Your task to perform on an android device: Search for the best rated 3d printer on Amazon. Image 0: 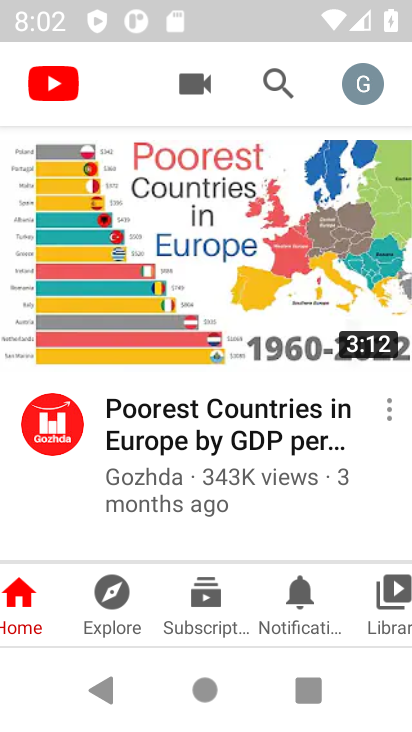
Step 0: press home button
Your task to perform on an android device: Search for the best rated 3d printer on Amazon. Image 1: 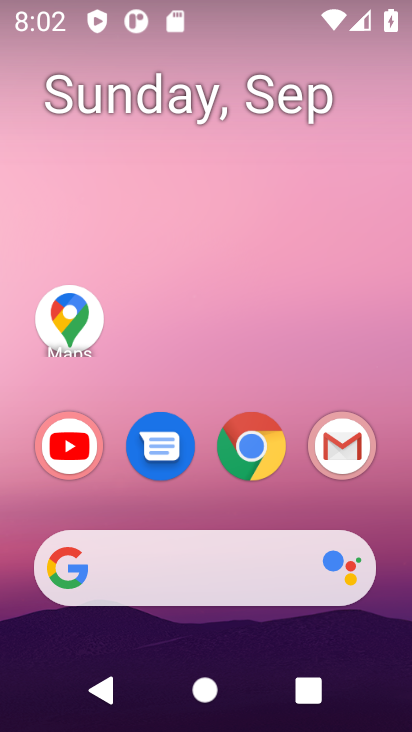
Step 1: click (364, 427)
Your task to perform on an android device: Search for the best rated 3d printer on Amazon. Image 2: 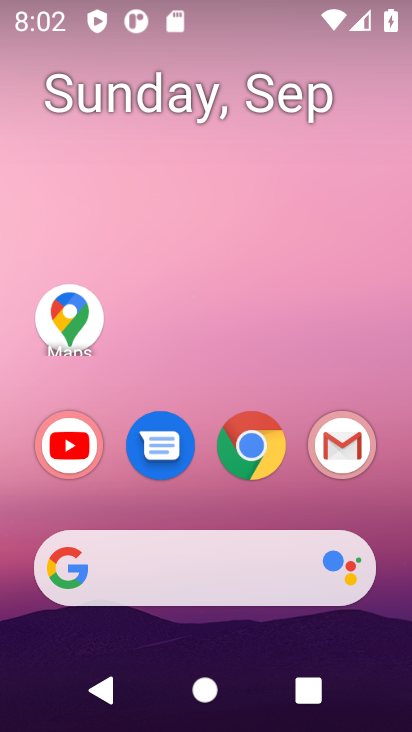
Step 2: drag from (216, 142) to (219, 26)
Your task to perform on an android device: Search for the best rated 3d printer on Amazon. Image 3: 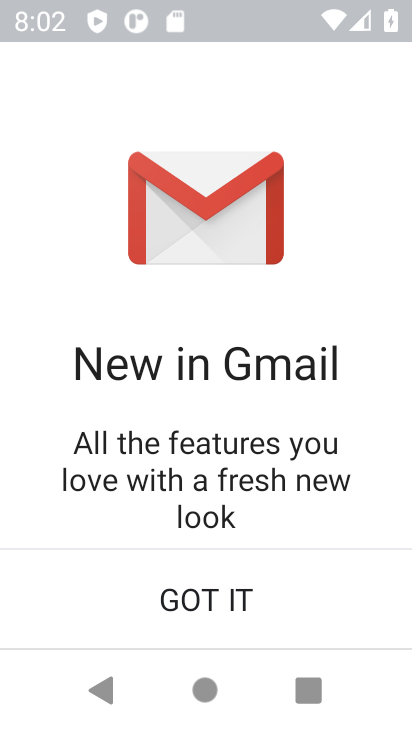
Step 3: press home button
Your task to perform on an android device: Search for the best rated 3d printer on Amazon. Image 4: 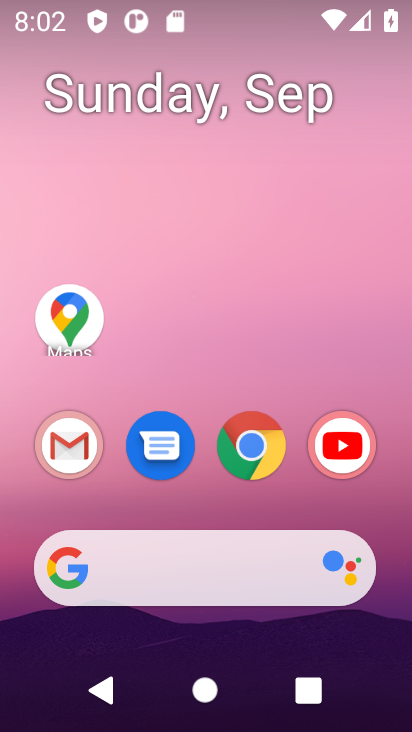
Step 4: click (176, 92)
Your task to perform on an android device: Search for the best rated 3d printer on Amazon. Image 5: 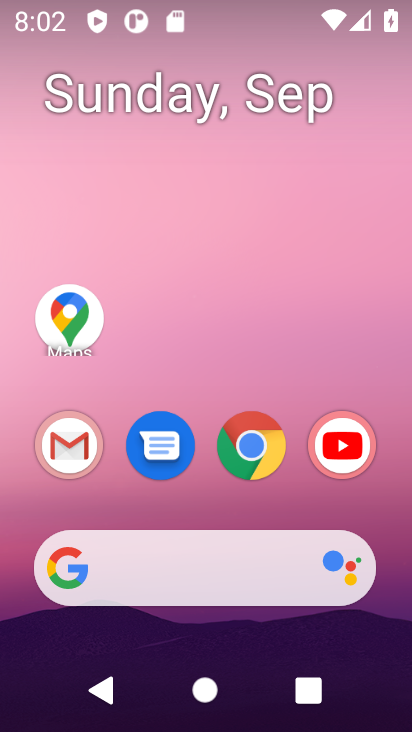
Step 5: click (270, 463)
Your task to perform on an android device: Search for the best rated 3d printer on Amazon. Image 6: 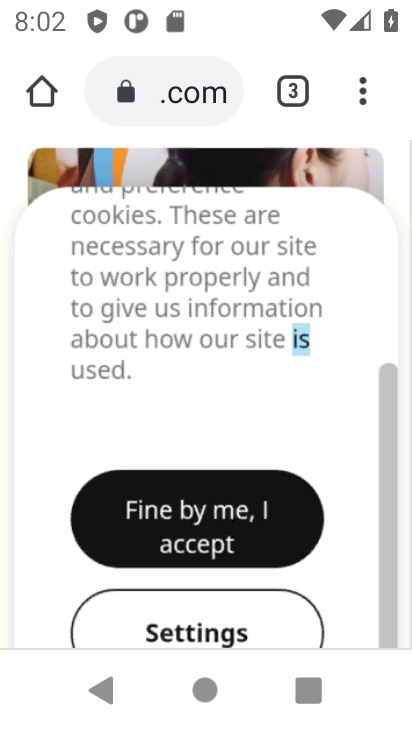
Step 6: click (171, 98)
Your task to perform on an android device: Search for the best rated 3d printer on Amazon. Image 7: 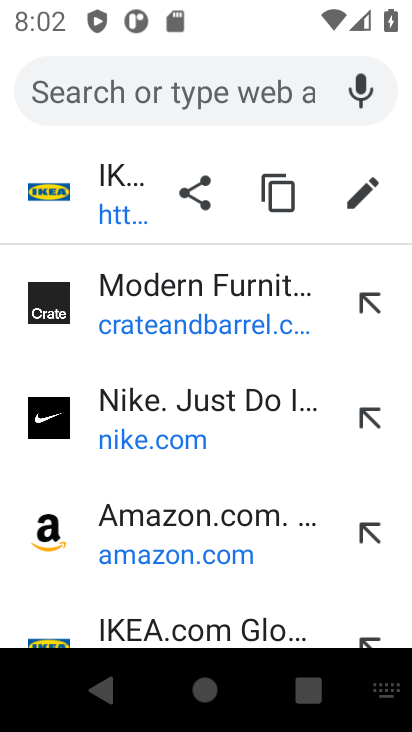
Step 7: click (207, 529)
Your task to perform on an android device: Search for the best rated 3d printer on Amazon. Image 8: 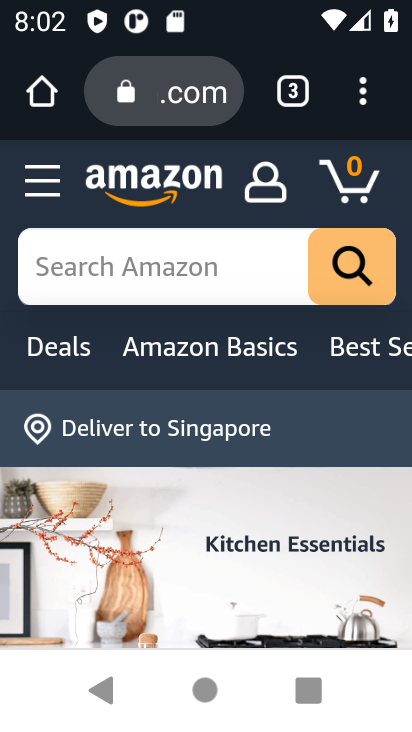
Step 8: type "best rated 3d printer "
Your task to perform on an android device: Search for the best rated 3d printer on Amazon. Image 9: 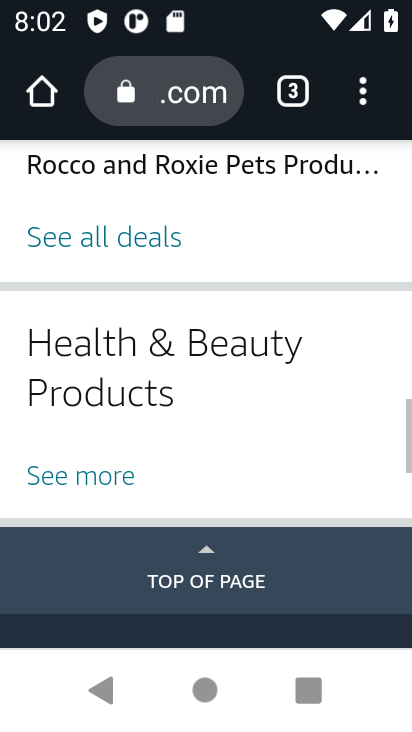
Step 9: press enter
Your task to perform on an android device: Search for the best rated 3d printer on Amazon. Image 10: 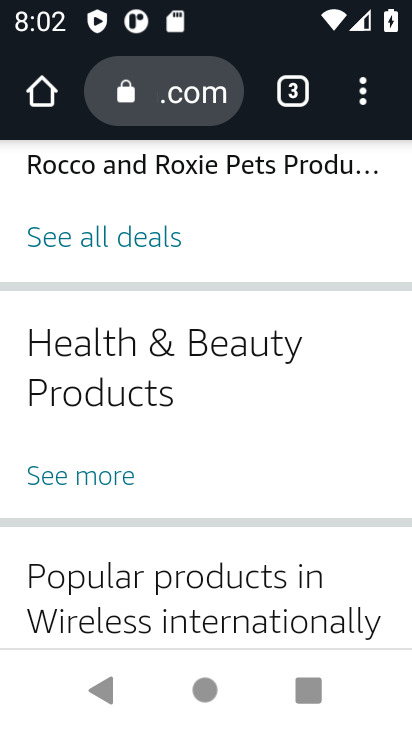
Step 10: drag from (271, 315) to (239, 611)
Your task to perform on an android device: Search for the best rated 3d printer on Amazon. Image 11: 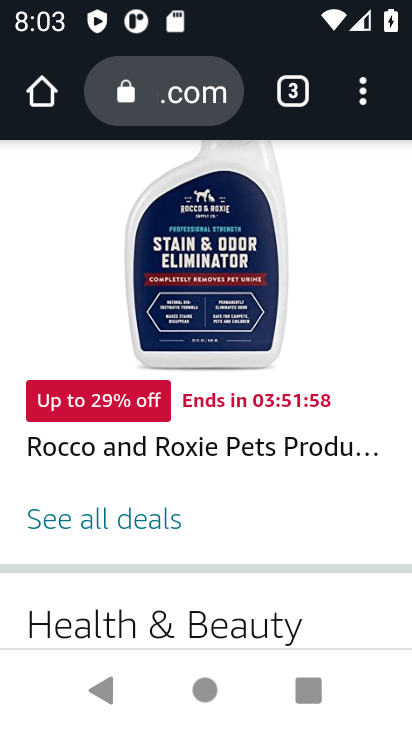
Step 11: click (307, 536)
Your task to perform on an android device: Search for the best rated 3d printer on Amazon. Image 12: 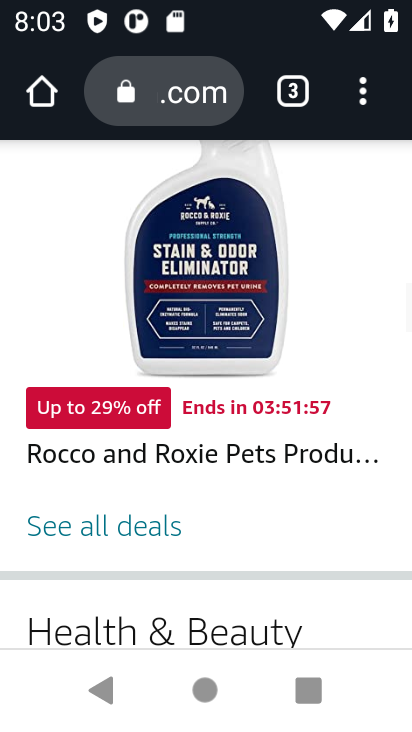
Step 12: task complete